Your task to perform on an android device: open app "AliExpress" (install if not already installed) and enter user name: "orangutan@inbox.com" and password: "Lyons" Image 0: 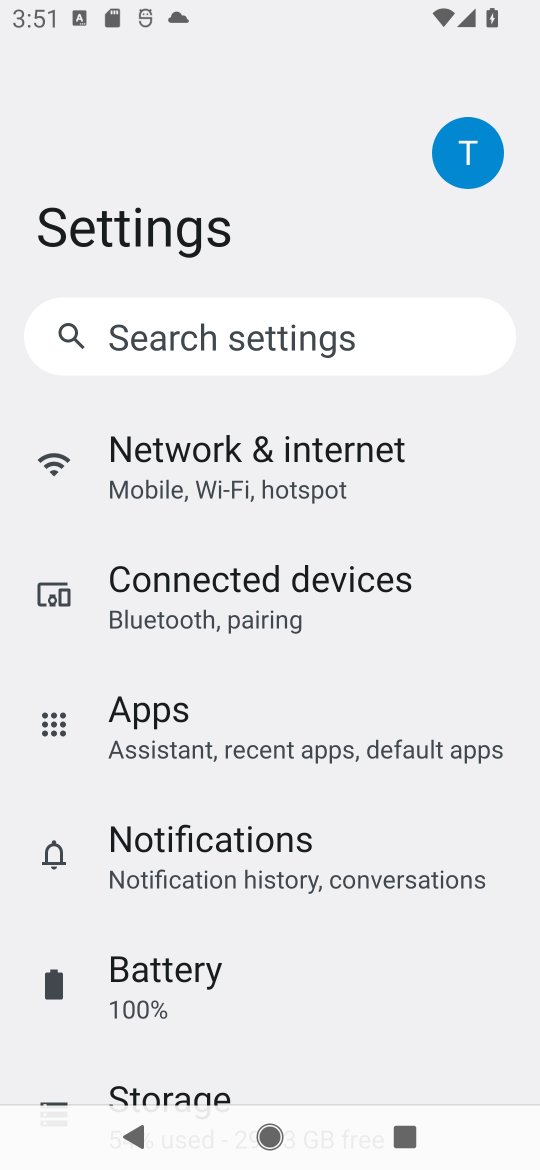
Step 0: press home button
Your task to perform on an android device: open app "AliExpress" (install if not already installed) and enter user name: "orangutan@inbox.com" and password: "Lyons" Image 1: 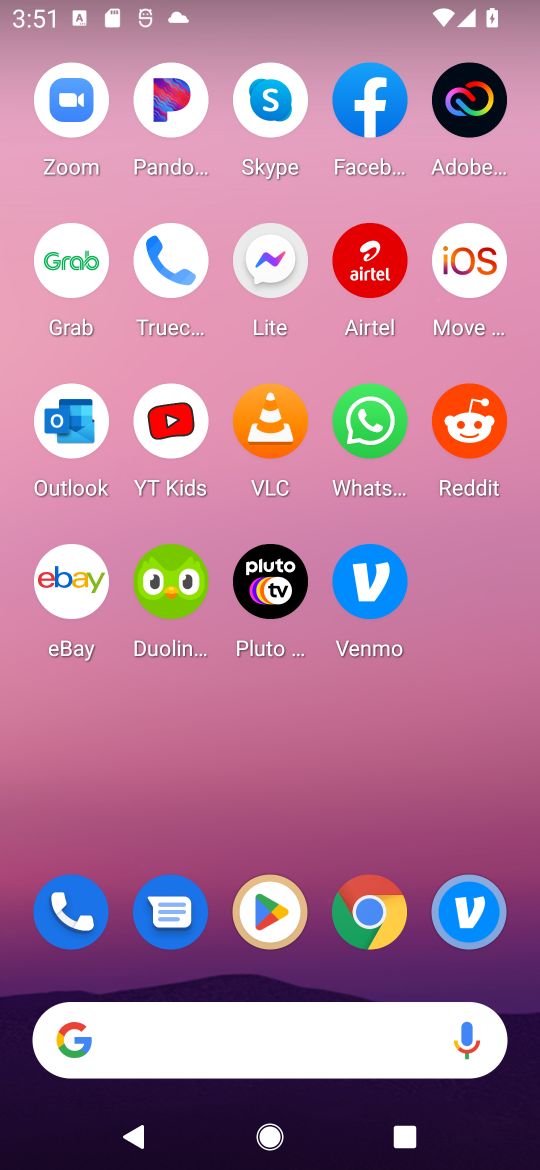
Step 1: drag from (189, 1061) to (417, 262)
Your task to perform on an android device: open app "AliExpress" (install if not already installed) and enter user name: "orangutan@inbox.com" and password: "Lyons" Image 2: 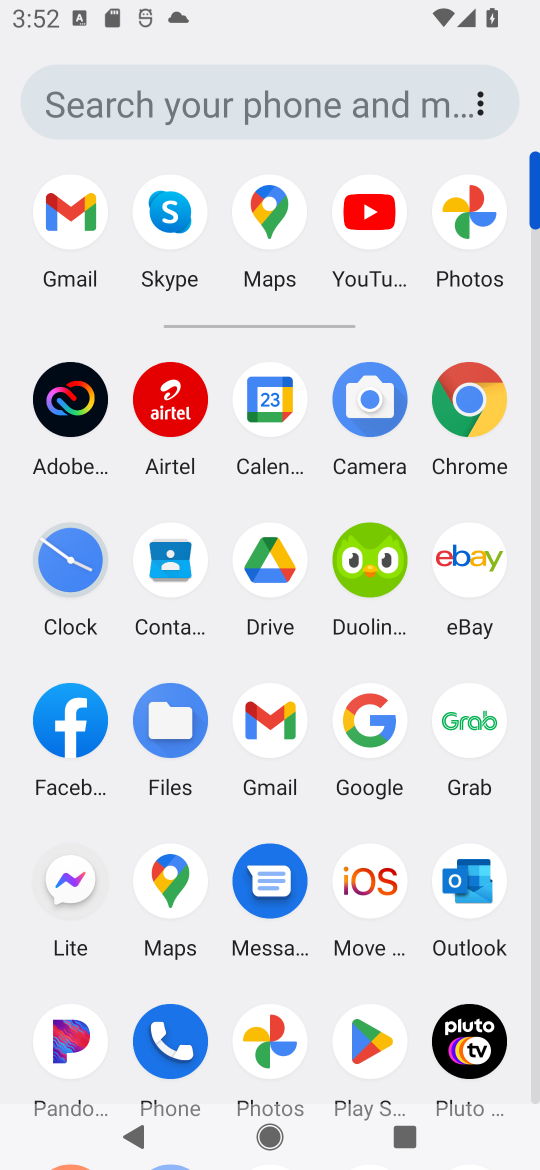
Step 2: click (366, 1037)
Your task to perform on an android device: open app "AliExpress" (install if not already installed) and enter user name: "orangutan@inbox.com" and password: "Lyons" Image 3: 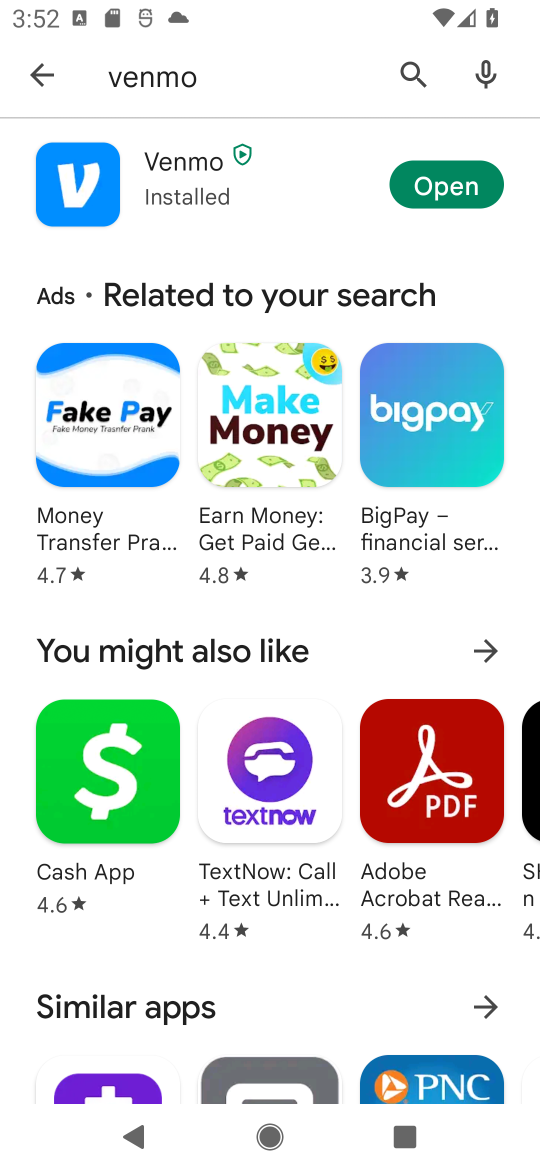
Step 3: press back button
Your task to perform on an android device: open app "AliExpress" (install if not already installed) and enter user name: "orangutan@inbox.com" and password: "Lyons" Image 4: 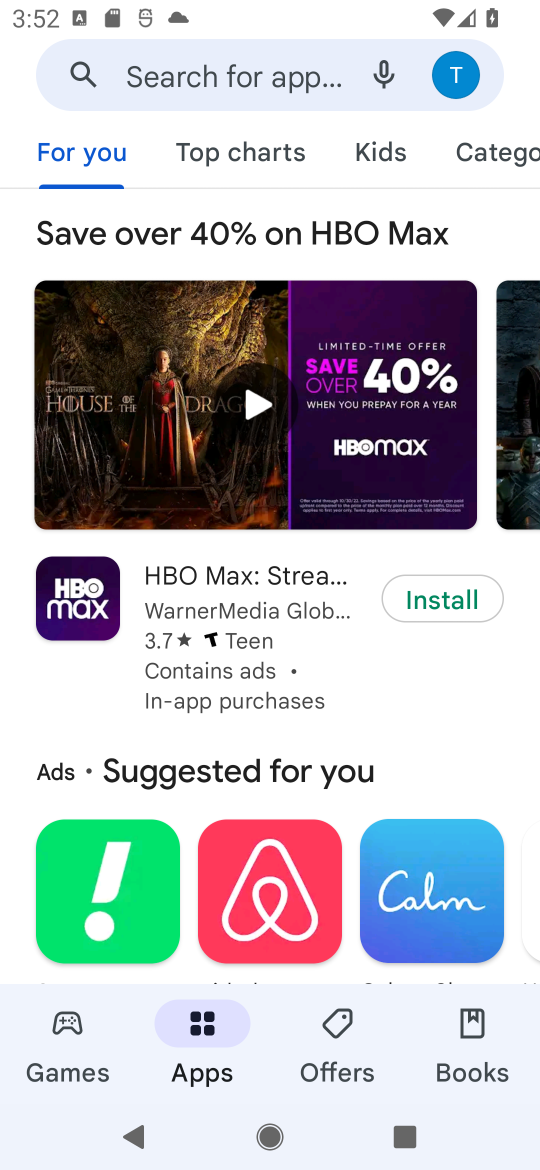
Step 4: click (287, 77)
Your task to perform on an android device: open app "AliExpress" (install if not already installed) and enter user name: "orangutan@inbox.com" and password: "Lyons" Image 5: 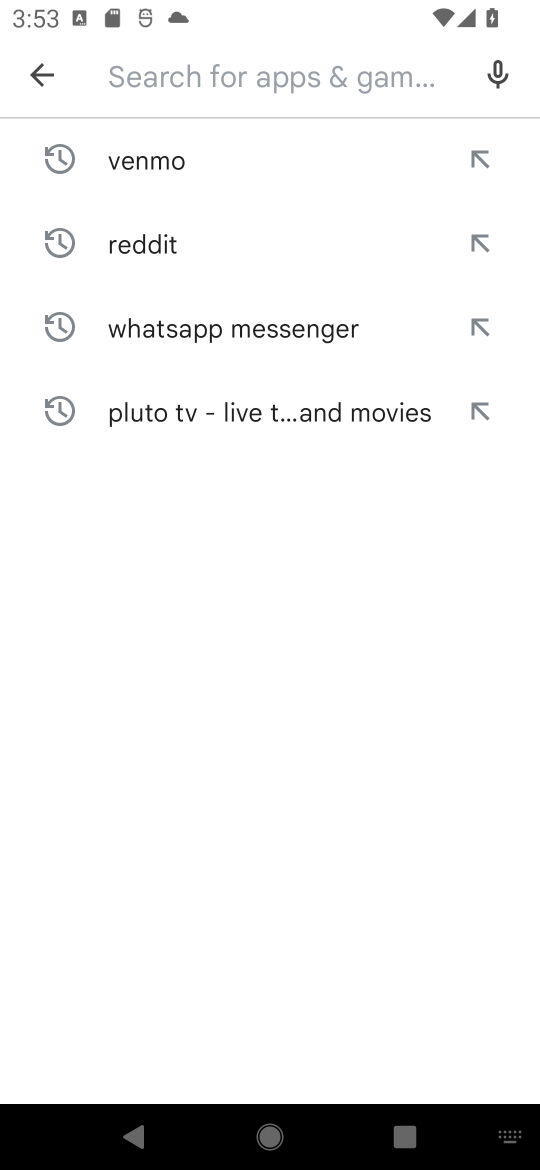
Step 5: type "AliExpress"
Your task to perform on an android device: open app "AliExpress" (install if not already installed) and enter user name: "orangutan@inbox.com" and password: "Lyons" Image 6: 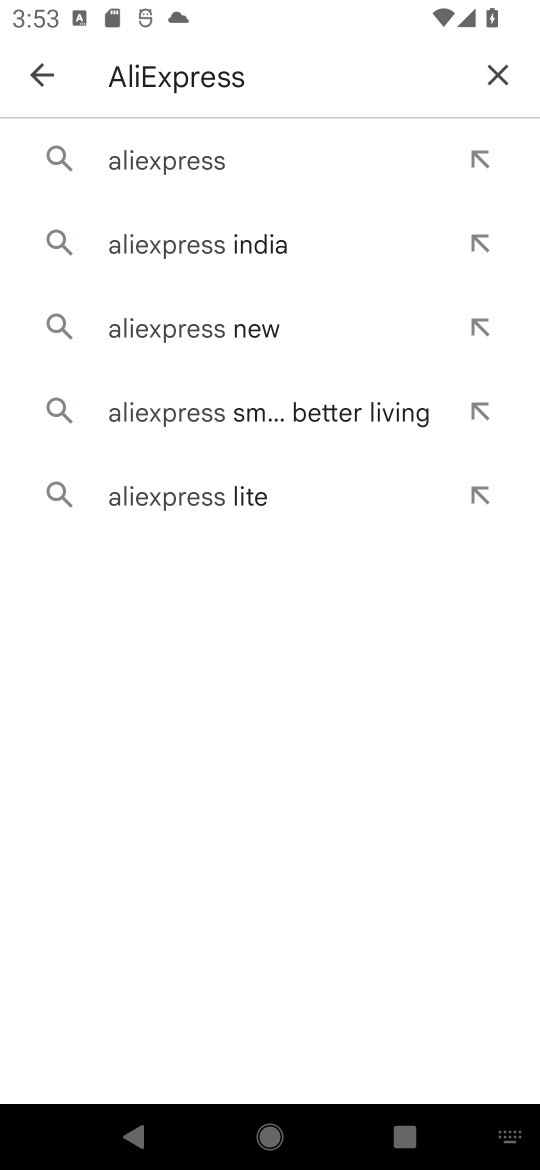
Step 6: click (199, 174)
Your task to perform on an android device: open app "AliExpress" (install if not already installed) and enter user name: "orangutan@inbox.com" and password: "Lyons" Image 7: 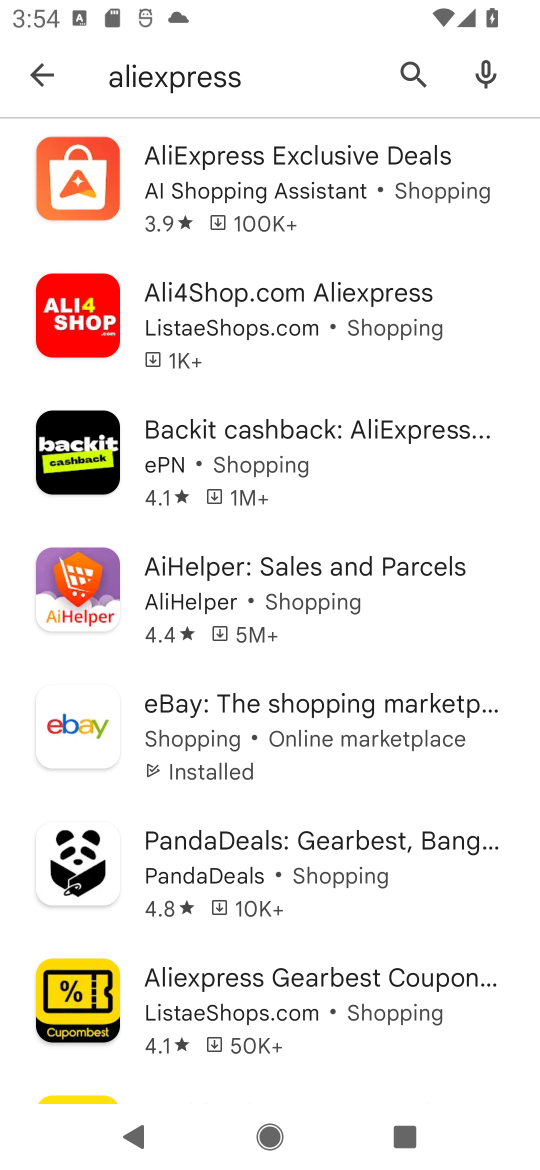
Step 7: task complete